Your task to perform on an android device: What is the recent news? Image 0: 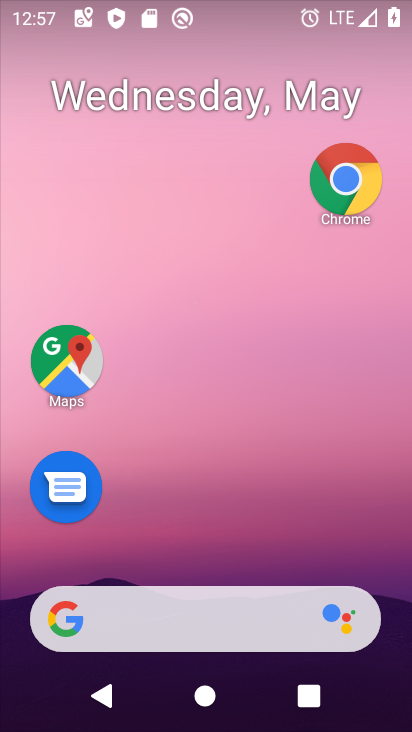
Step 0: drag from (203, 519) to (19, 90)
Your task to perform on an android device: What is the recent news? Image 1: 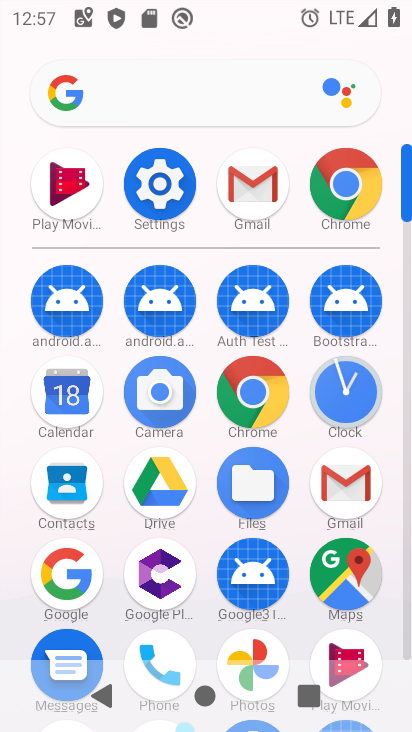
Step 1: click (234, 89)
Your task to perform on an android device: What is the recent news? Image 2: 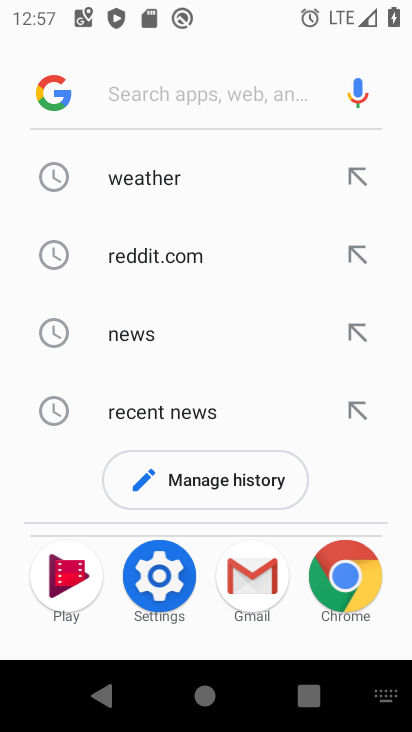
Step 2: click (191, 399)
Your task to perform on an android device: What is the recent news? Image 3: 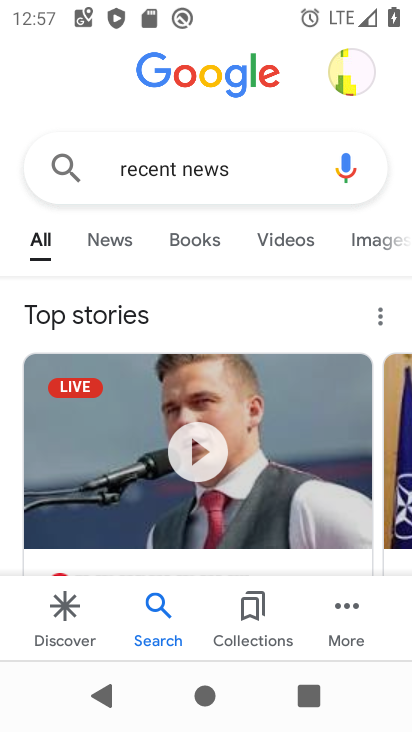
Step 3: task complete